Your task to perform on an android device: Open display settings Image 0: 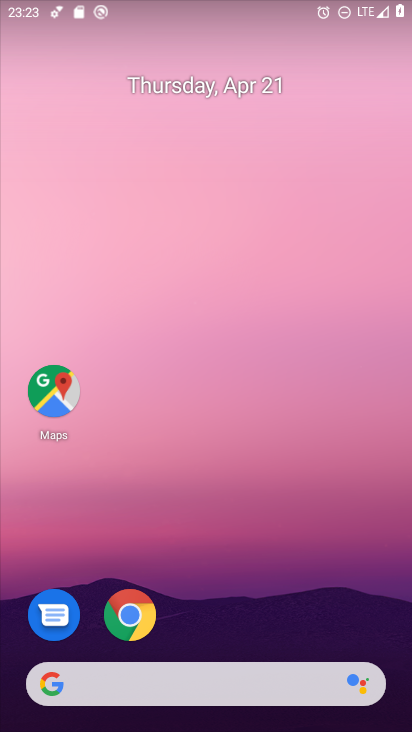
Step 0: press home button
Your task to perform on an android device: Open display settings Image 1: 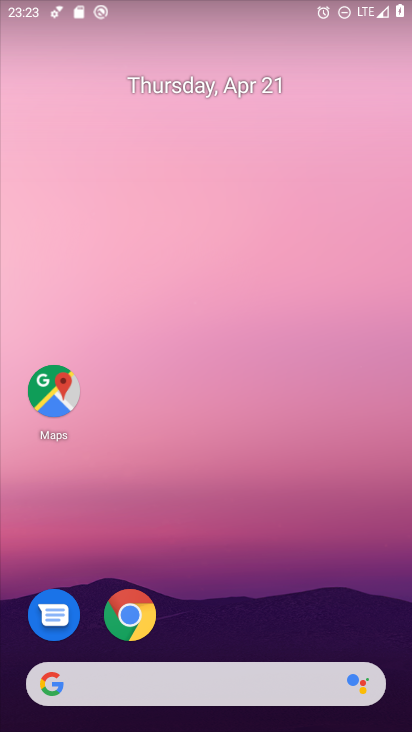
Step 1: drag from (212, 640) to (259, 206)
Your task to perform on an android device: Open display settings Image 2: 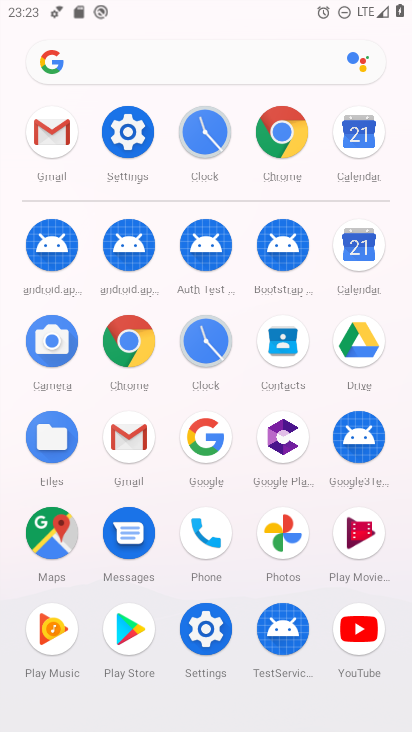
Step 2: click (205, 621)
Your task to perform on an android device: Open display settings Image 3: 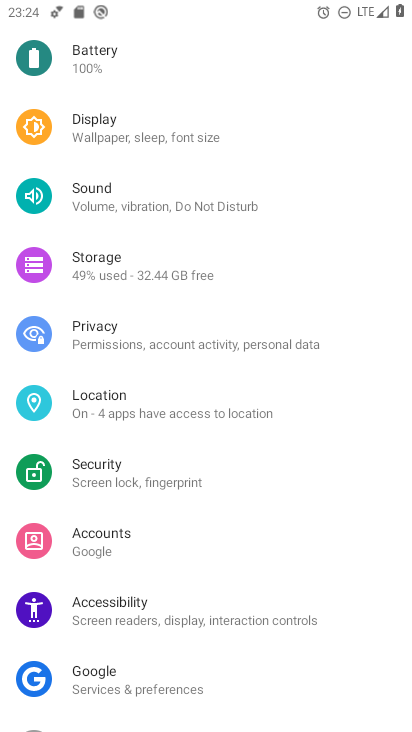
Step 3: click (122, 117)
Your task to perform on an android device: Open display settings Image 4: 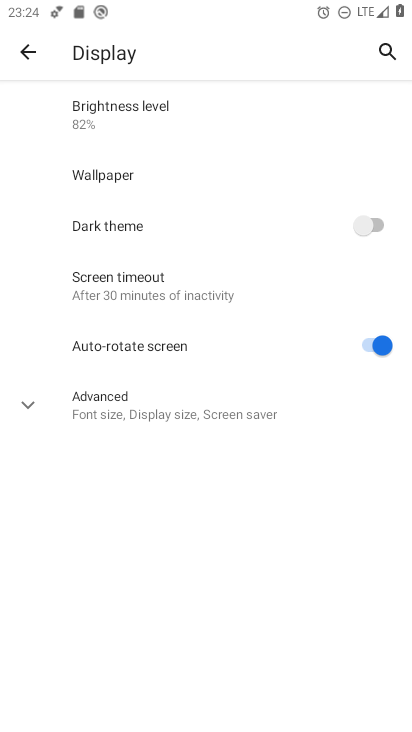
Step 4: click (28, 402)
Your task to perform on an android device: Open display settings Image 5: 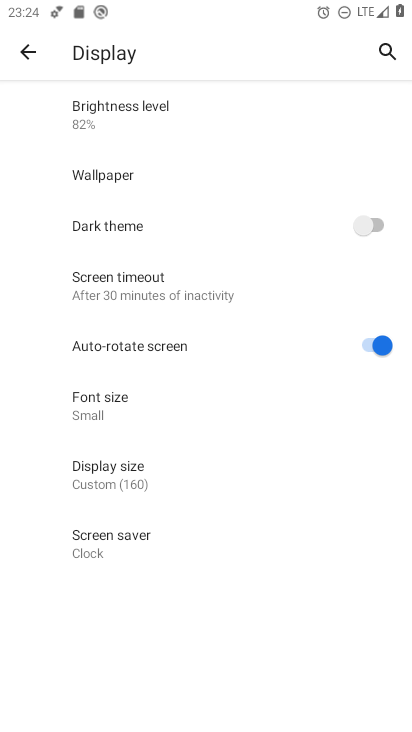
Step 5: task complete